Your task to perform on an android device: Go to CNN.com Image 0: 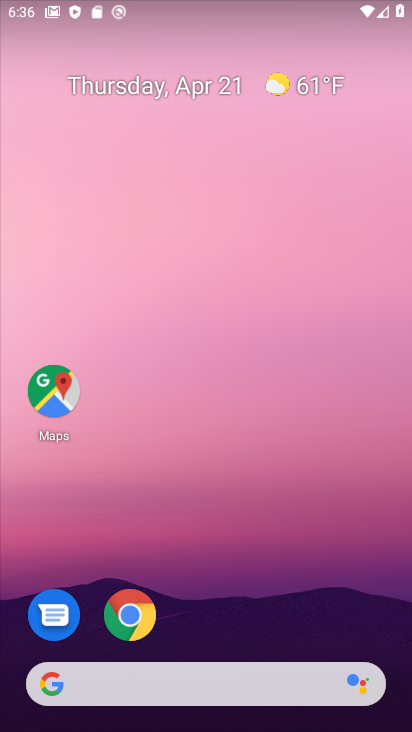
Step 0: drag from (259, 584) to (337, 236)
Your task to perform on an android device: Go to CNN.com Image 1: 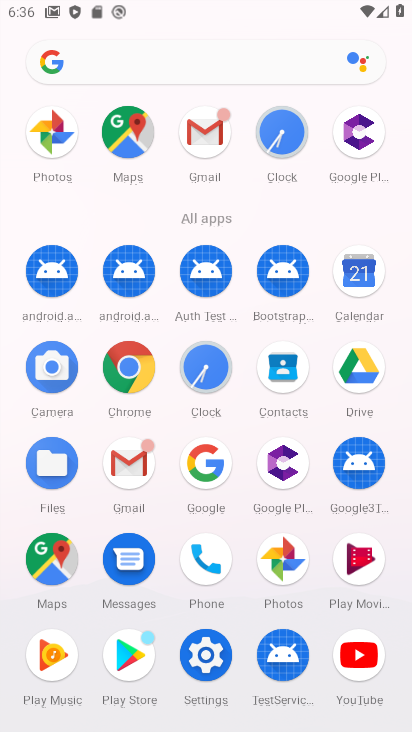
Step 1: click (117, 373)
Your task to perform on an android device: Go to CNN.com Image 2: 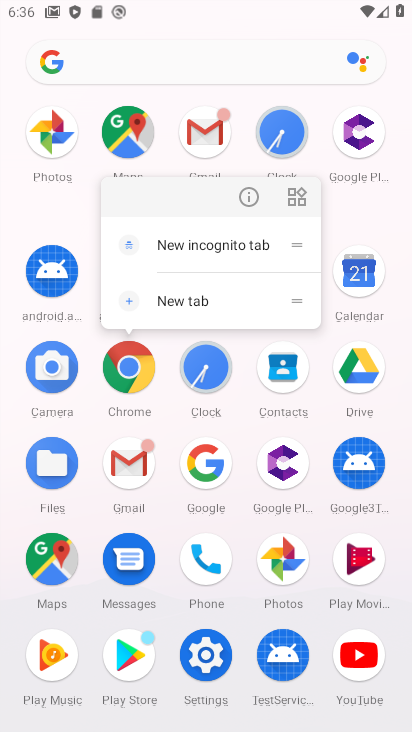
Step 2: click (255, 195)
Your task to perform on an android device: Go to CNN.com Image 3: 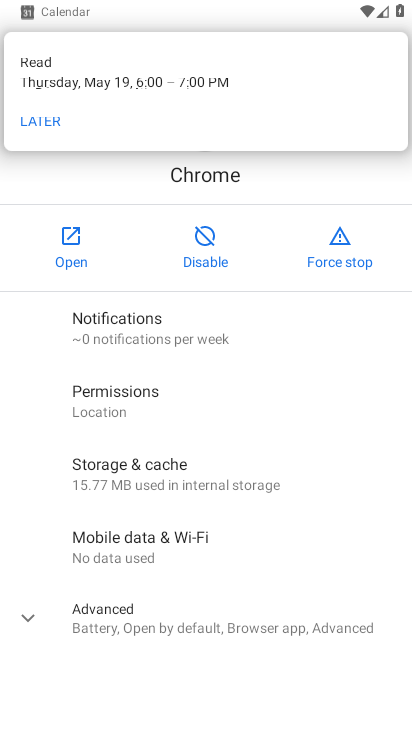
Step 3: click (76, 243)
Your task to perform on an android device: Go to CNN.com Image 4: 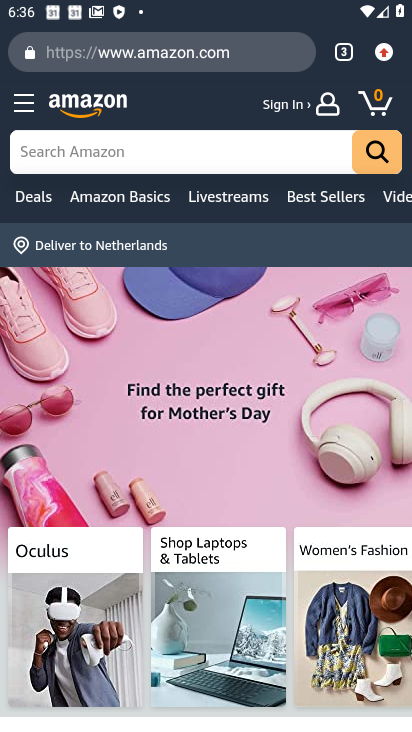
Step 4: click (190, 49)
Your task to perform on an android device: Go to CNN.com Image 5: 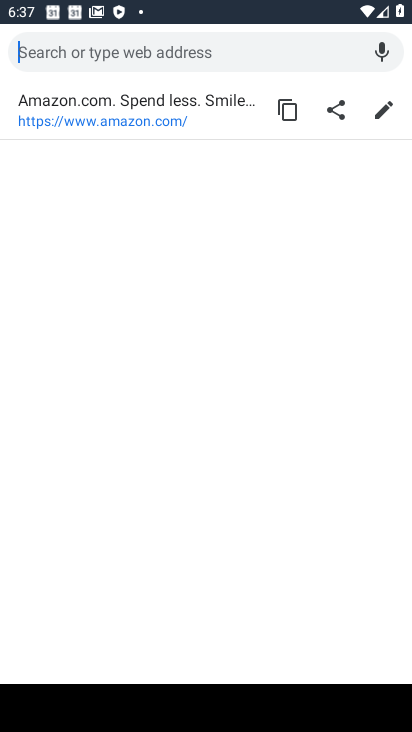
Step 5: type "cnn"
Your task to perform on an android device: Go to CNN.com Image 6: 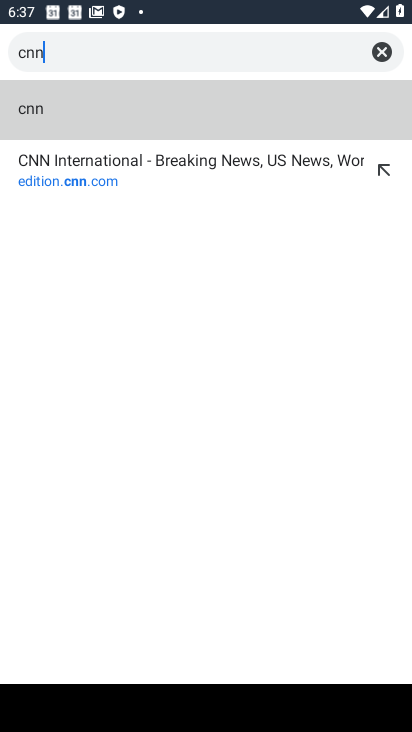
Step 6: click (17, 131)
Your task to perform on an android device: Go to CNN.com Image 7: 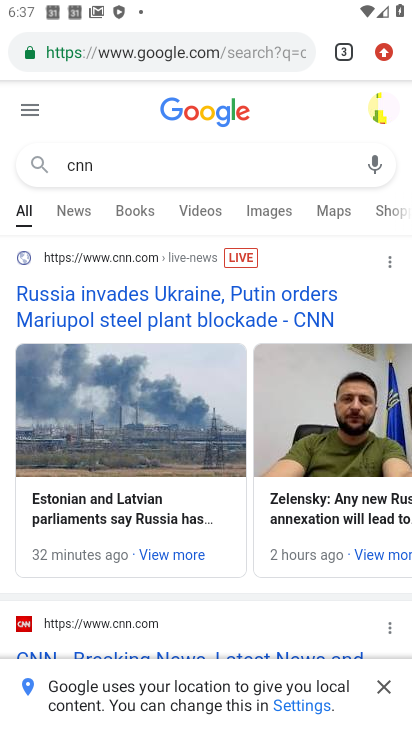
Step 7: task complete